Your task to perform on an android device: Open ESPN.com Image 0: 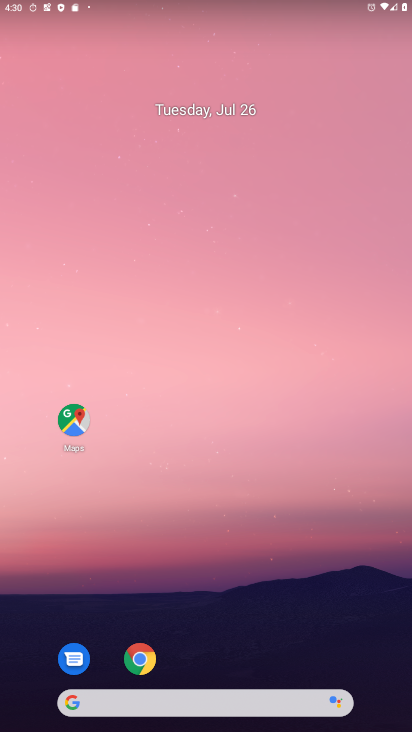
Step 0: press home button
Your task to perform on an android device: Open ESPN.com Image 1: 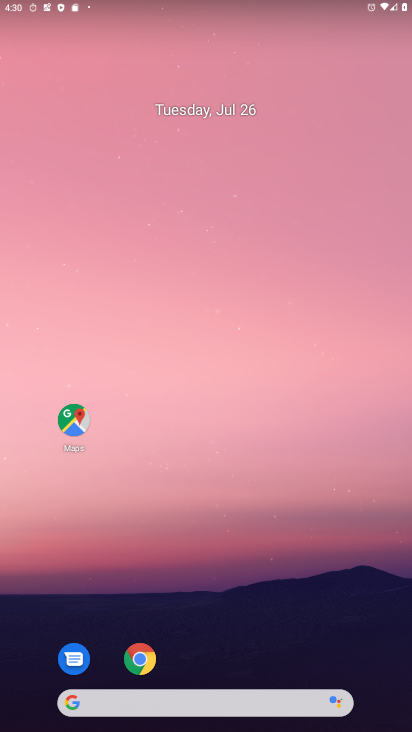
Step 1: click (69, 702)
Your task to perform on an android device: Open ESPN.com Image 2: 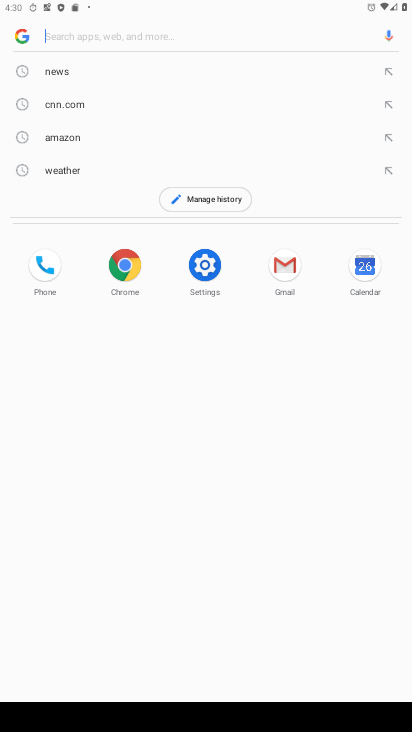
Step 2: type "ESPN.com"
Your task to perform on an android device: Open ESPN.com Image 3: 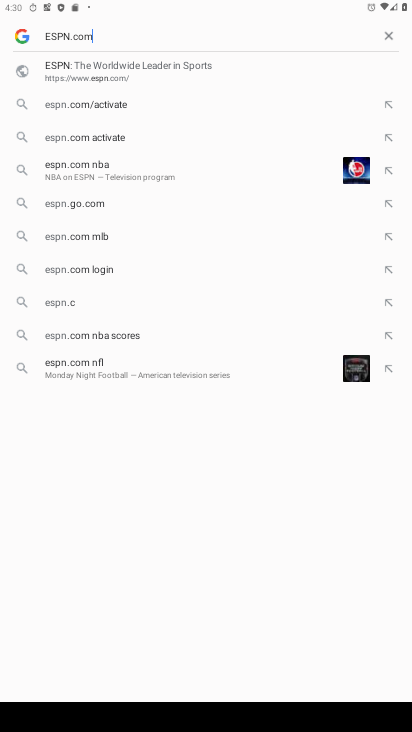
Step 3: press enter
Your task to perform on an android device: Open ESPN.com Image 4: 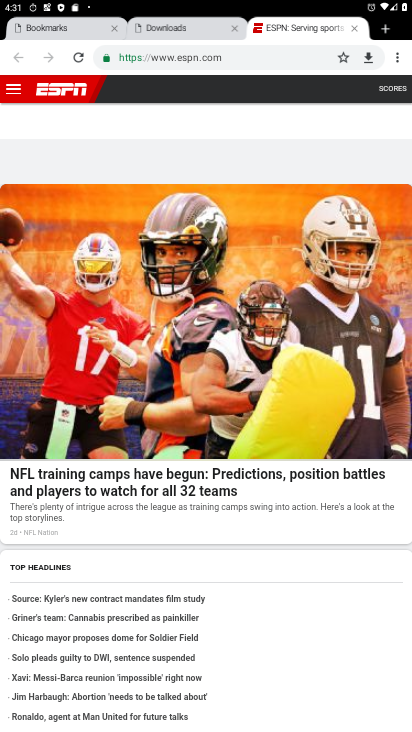
Step 4: task complete